Your task to perform on an android device: turn on location history Image 0: 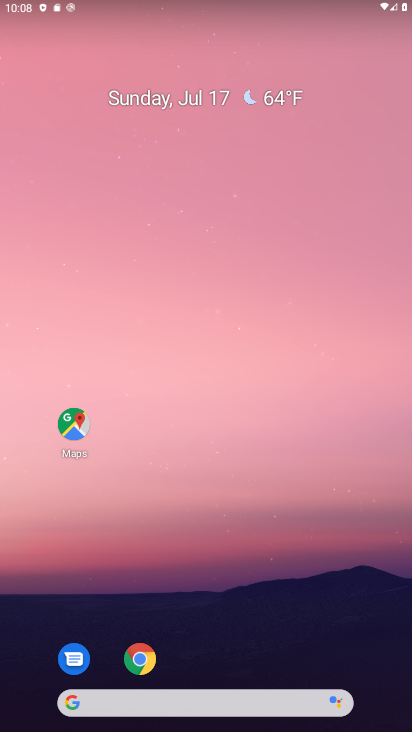
Step 0: drag from (188, 695) to (122, 141)
Your task to perform on an android device: turn on location history Image 1: 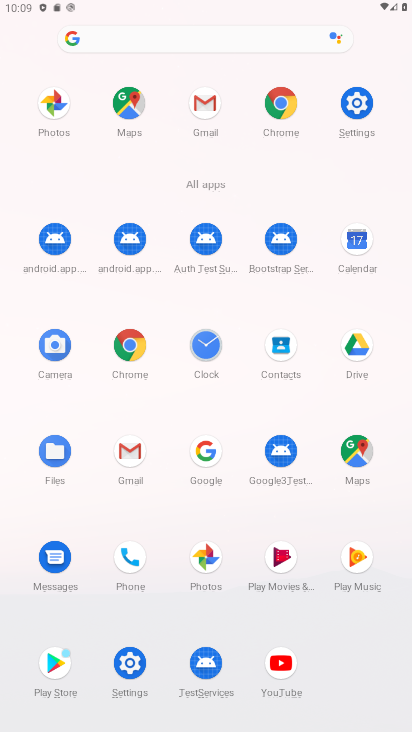
Step 1: click (129, 661)
Your task to perform on an android device: turn on location history Image 2: 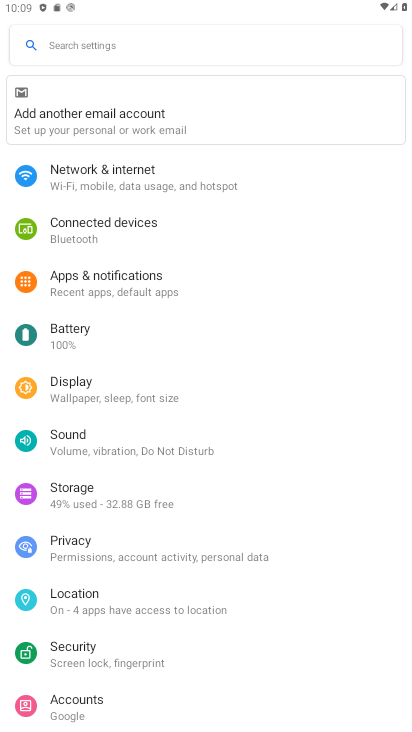
Step 2: click (109, 597)
Your task to perform on an android device: turn on location history Image 3: 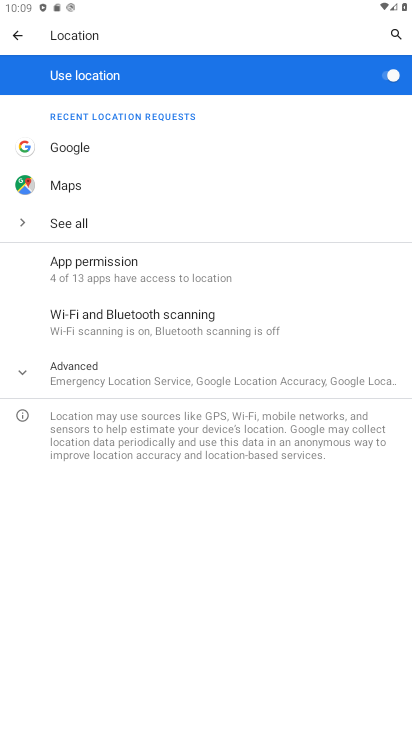
Step 3: task complete